Your task to perform on an android device: check storage Image 0: 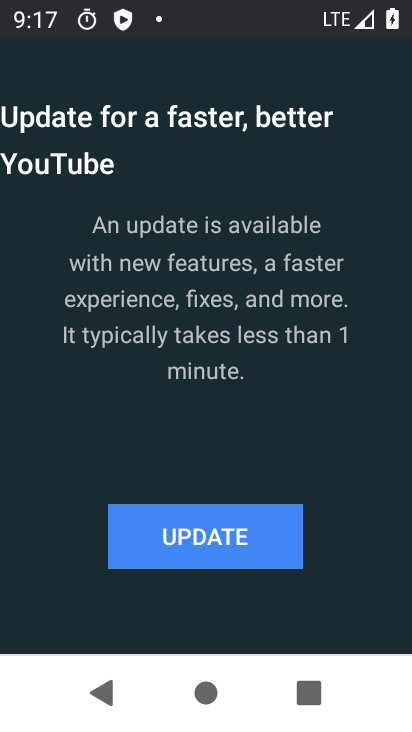
Step 0: press home button
Your task to perform on an android device: check storage Image 1: 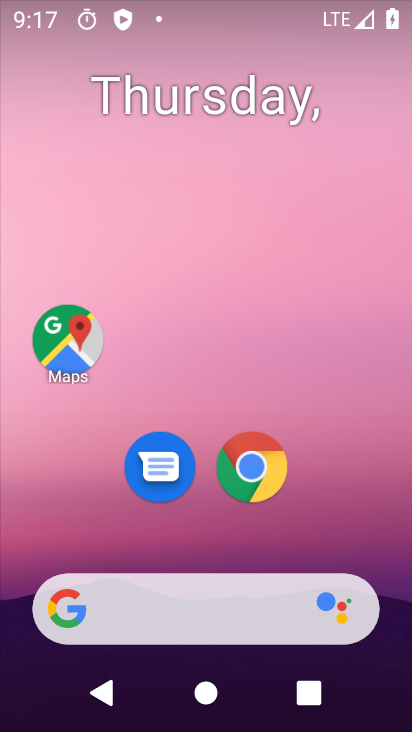
Step 1: drag from (334, 479) to (274, 95)
Your task to perform on an android device: check storage Image 2: 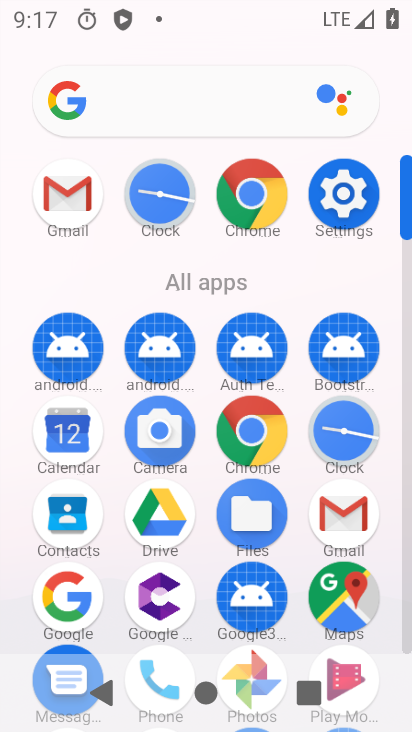
Step 2: click (333, 188)
Your task to perform on an android device: check storage Image 3: 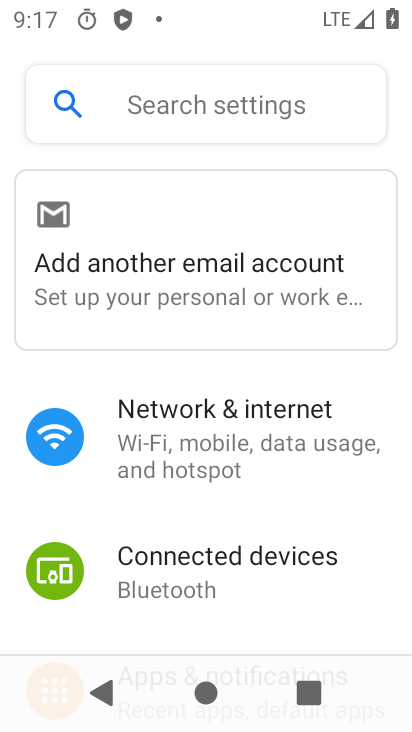
Step 3: drag from (290, 591) to (308, 151)
Your task to perform on an android device: check storage Image 4: 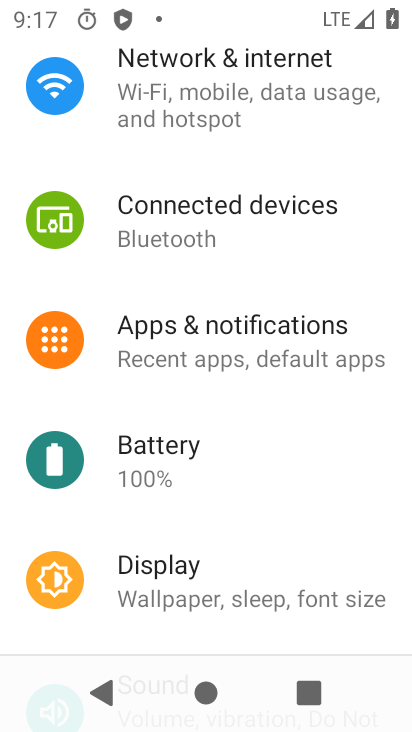
Step 4: drag from (228, 520) to (267, 189)
Your task to perform on an android device: check storage Image 5: 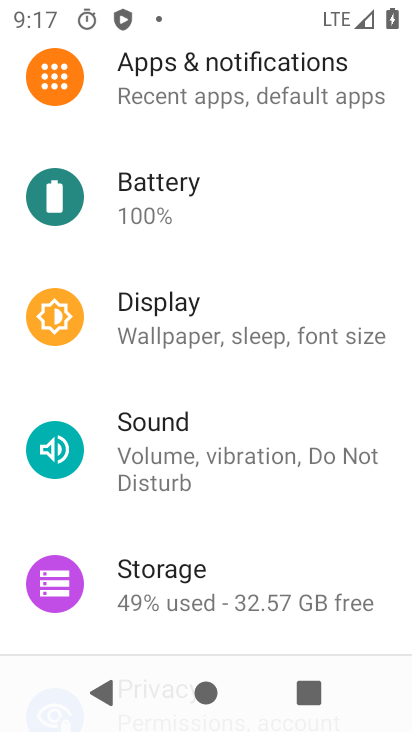
Step 5: click (266, 179)
Your task to perform on an android device: check storage Image 6: 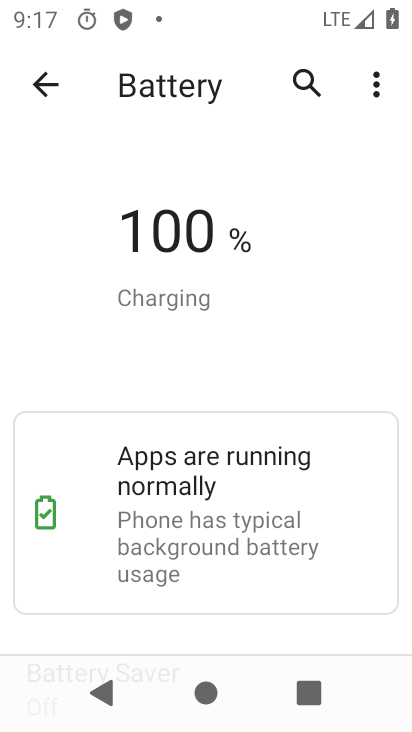
Step 6: click (53, 85)
Your task to perform on an android device: check storage Image 7: 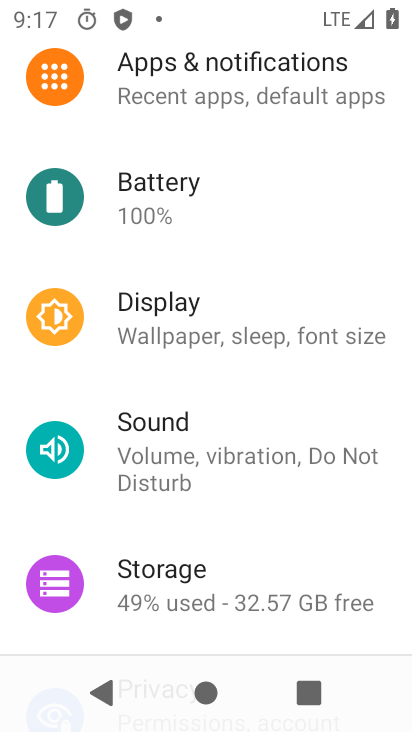
Step 7: click (245, 602)
Your task to perform on an android device: check storage Image 8: 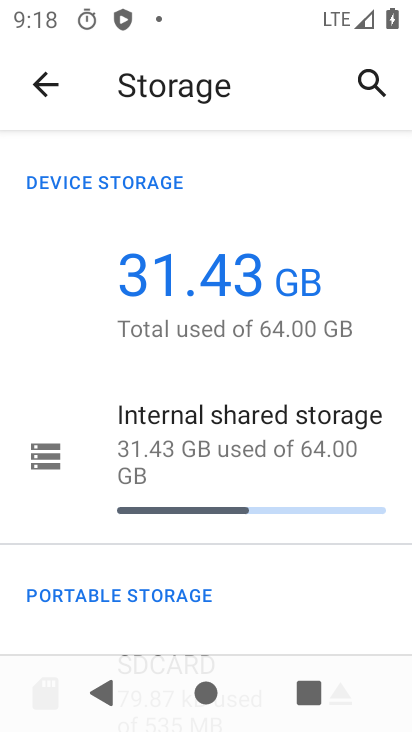
Step 8: task complete